Your task to perform on an android device: Open the map Image 0: 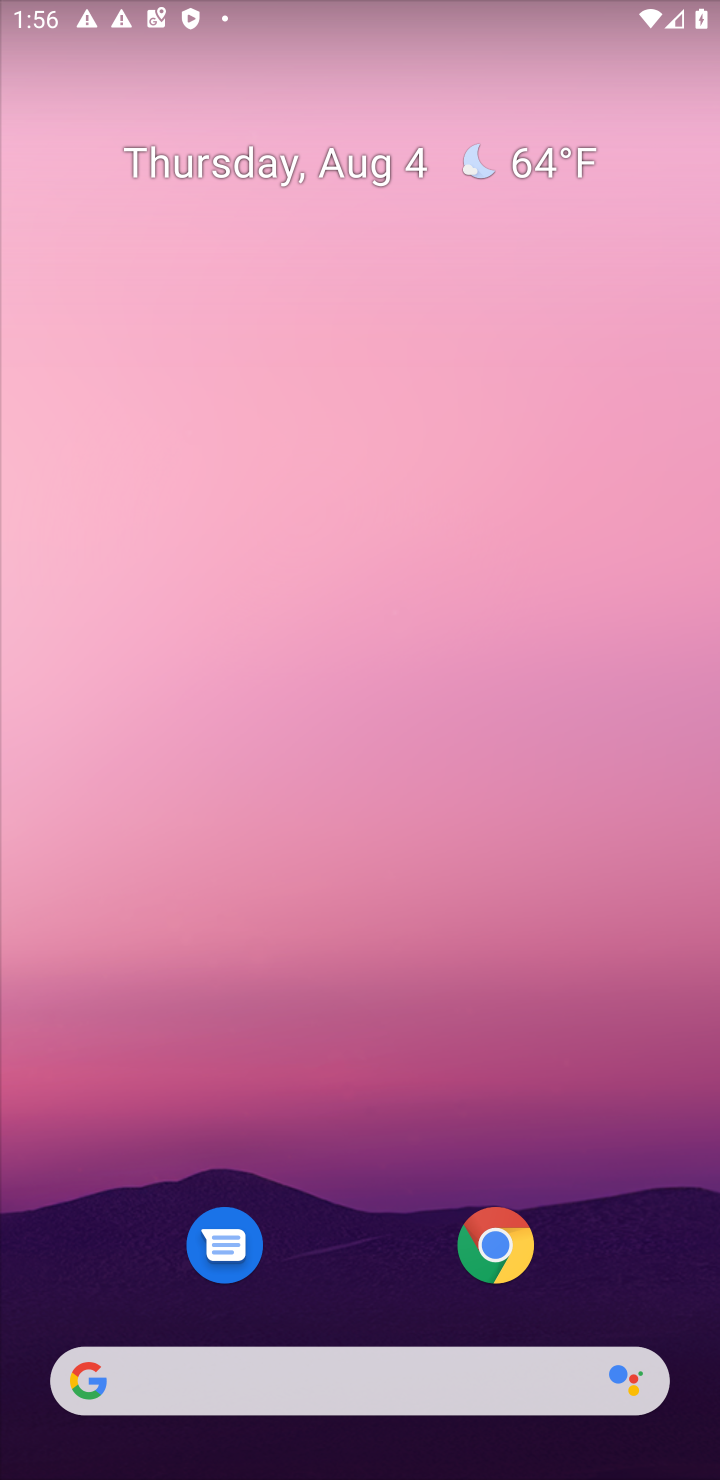
Step 0: drag from (364, 1236) to (372, 299)
Your task to perform on an android device: Open the map Image 1: 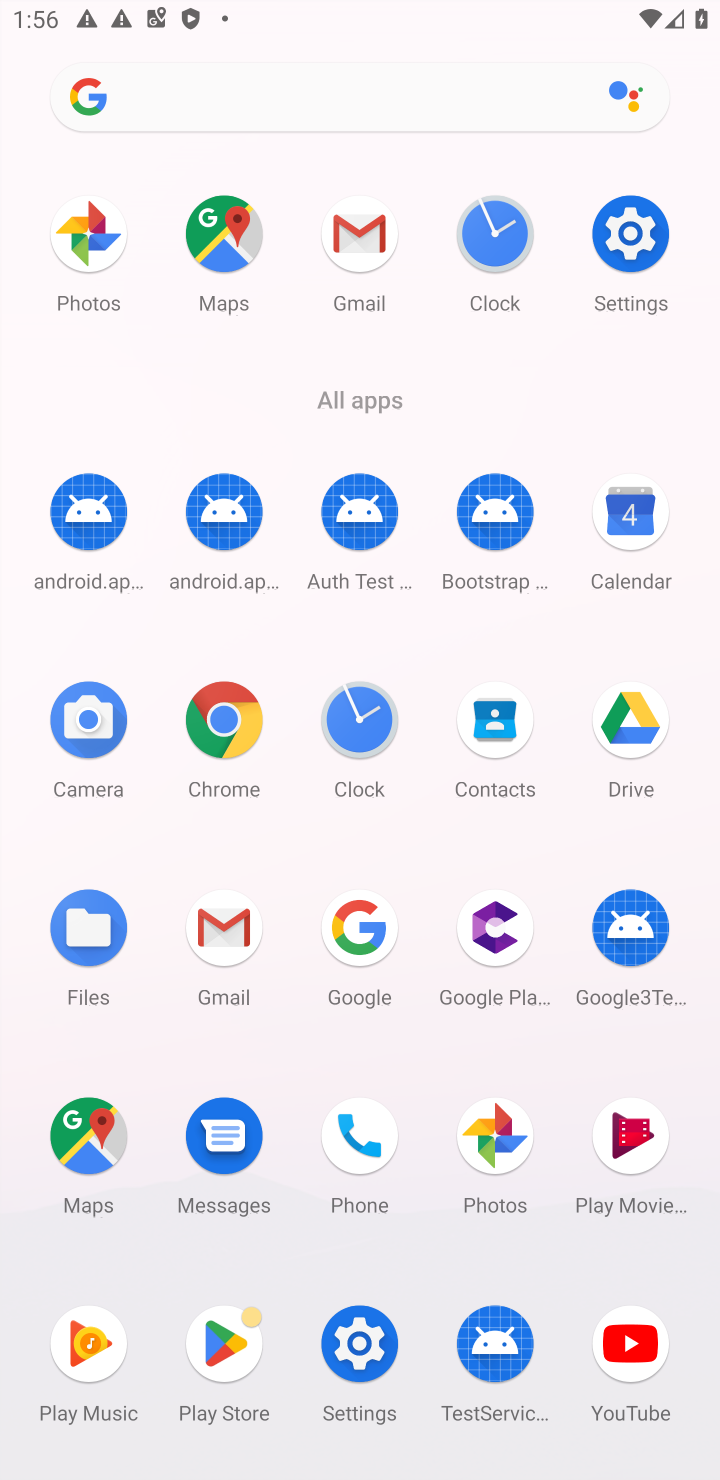
Step 1: click (99, 1143)
Your task to perform on an android device: Open the map Image 2: 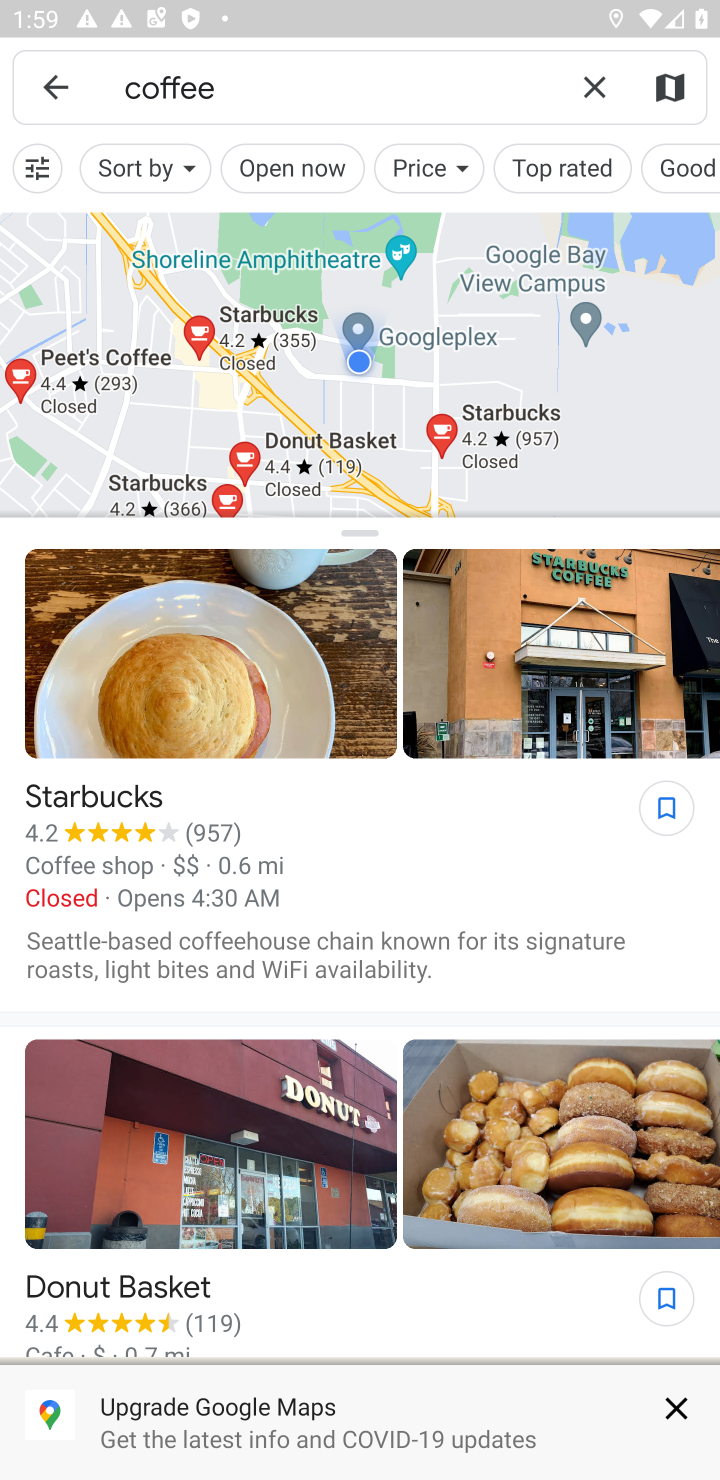
Step 2: task complete